Your task to perform on an android device: Play the last video I watched on Youtube Image 0: 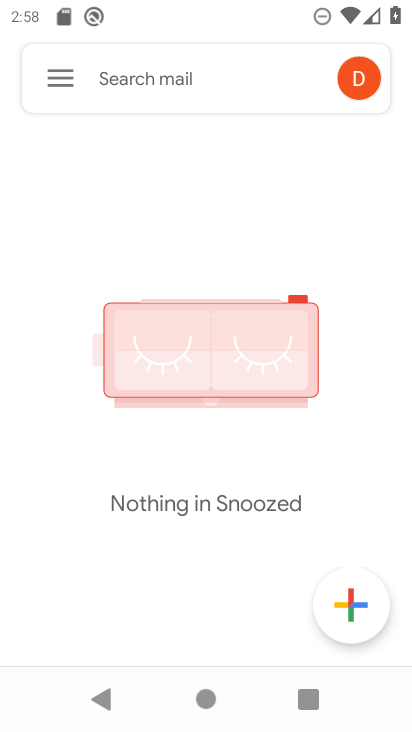
Step 0: press home button
Your task to perform on an android device: Play the last video I watched on Youtube Image 1: 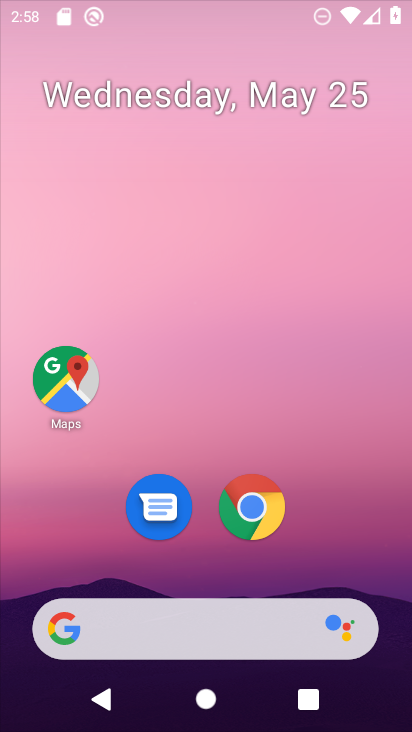
Step 1: drag from (195, 563) to (200, 142)
Your task to perform on an android device: Play the last video I watched on Youtube Image 2: 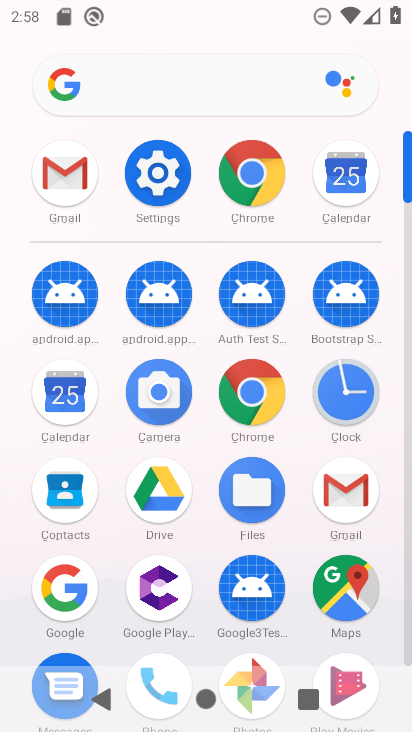
Step 2: drag from (159, 568) to (234, 117)
Your task to perform on an android device: Play the last video I watched on Youtube Image 3: 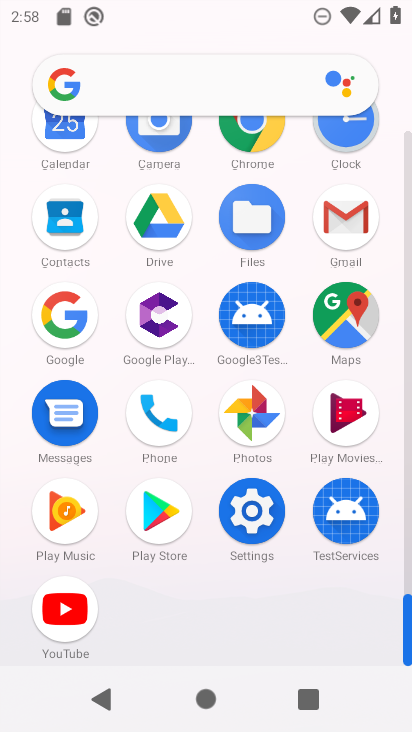
Step 3: click (80, 620)
Your task to perform on an android device: Play the last video I watched on Youtube Image 4: 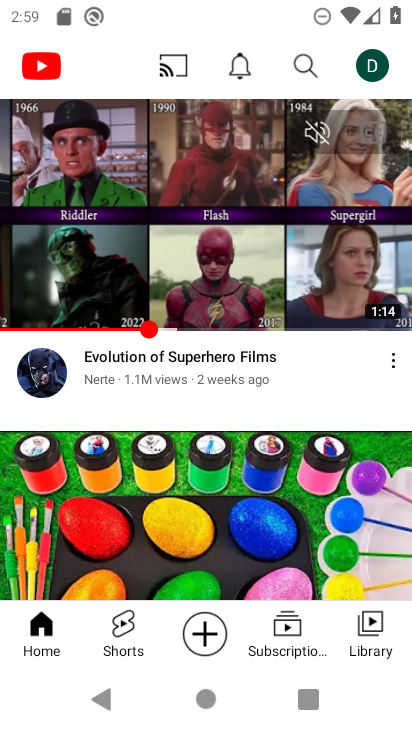
Step 4: click (366, 637)
Your task to perform on an android device: Play the last video I watched on Youtube Image 5: 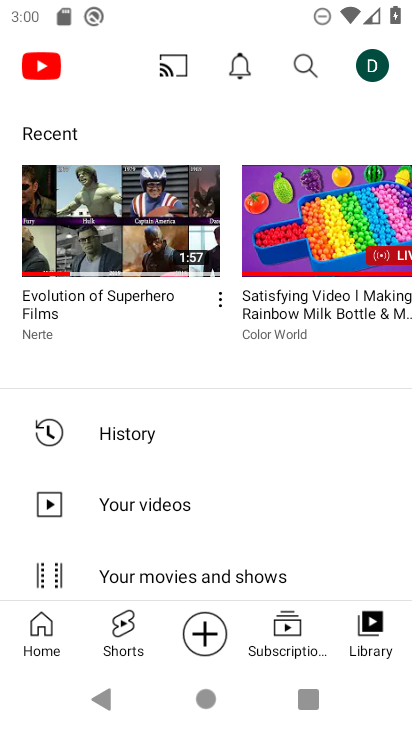
Step 5: click (152, 232)
Your task to perform on an android device: Play the last video I watched on Youtube Image 6: 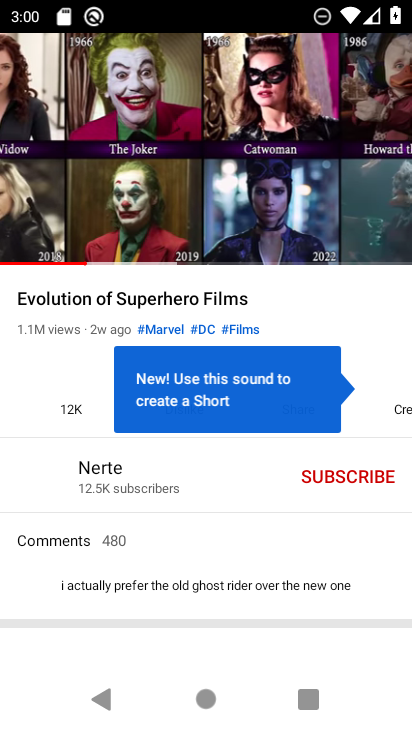
Step 6: task complete